Your task to perform on an android device: choose inbox layout in the gmail app Image 0: 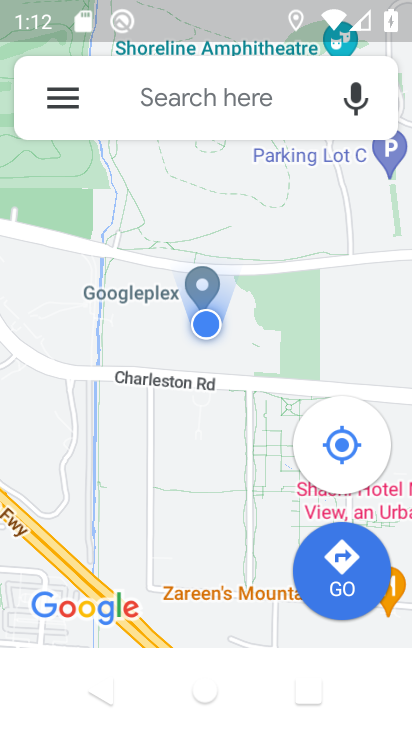
Step 0: press home button
Your task to perform on an android device: choose inbox layout in the gmail app Image 1: 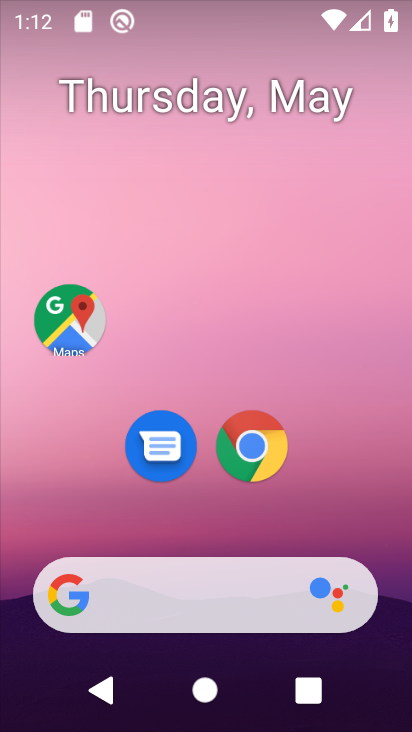
Step 1: drag from (184, 530) to (214, 10)
Your task to perform on an android device: choose inbox layout in the gmail app Image 2: 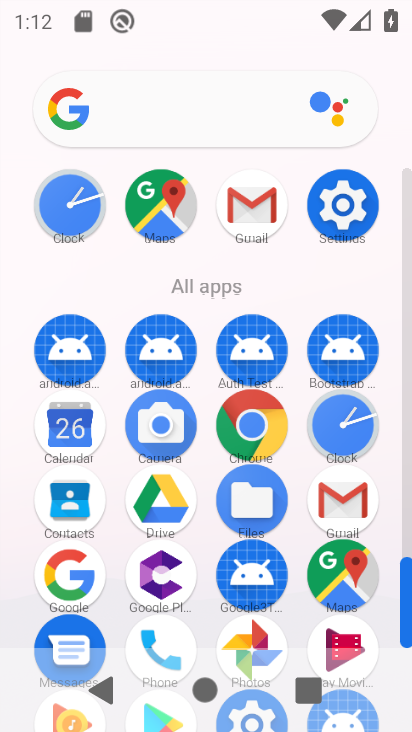
Step 2: click (359, 505)
Your task to perform on an android device: choose inbox layout in the gmail app Image 3: 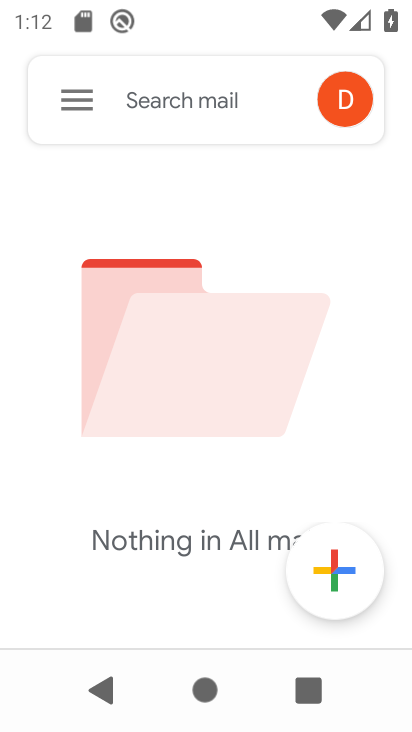
Step 3: click (61, 94)
Your task to perform on an android device: choose inbox layout in the gmail app Image 4: 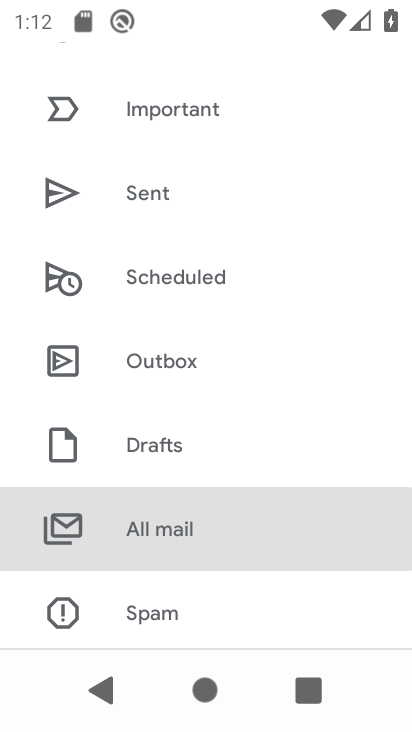
Step 4: drag from (140, 551) to (201, 111)
Your task to perform on an android device: choose inbox layout in the gmail app Image 5: 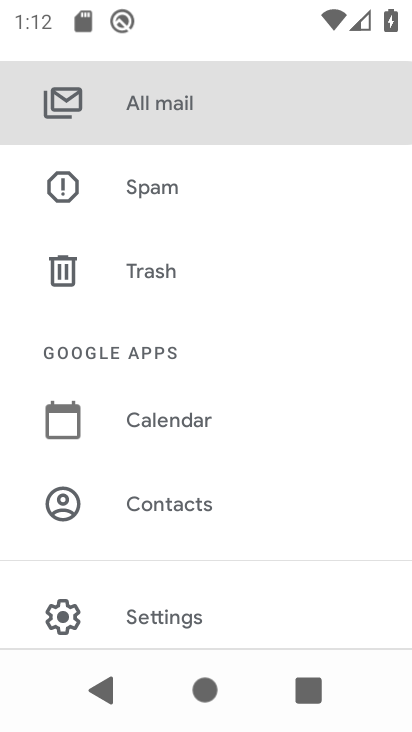
Step 5: drag from (137, 587) to (190, 277)
Your task to perform on an android device: choose inbox layout in the gmail app Image 6: 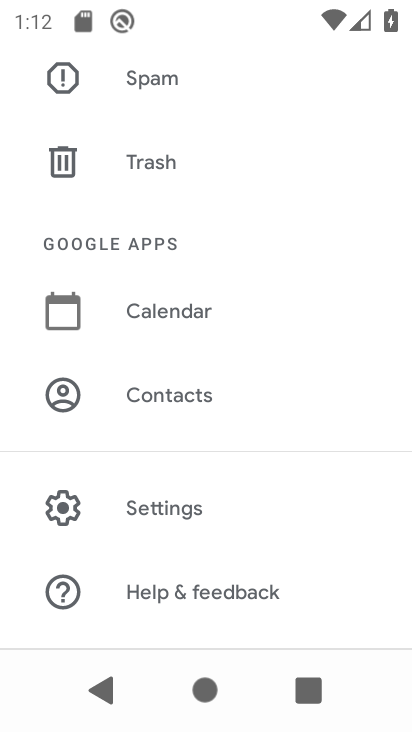
Step 6: click (129, 523)
Your task to perform on an android device: choose inbox layout in the gmail app Image 7: 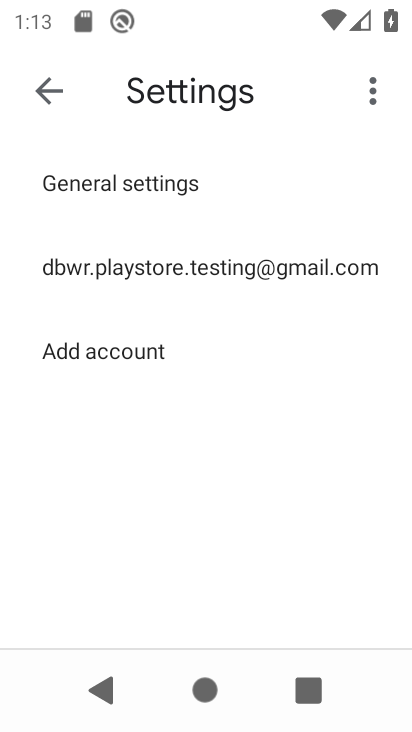
Step 7: click (221, 277)
Your task to perform on an android device: choose inbox layout in the gmail app Image 8: 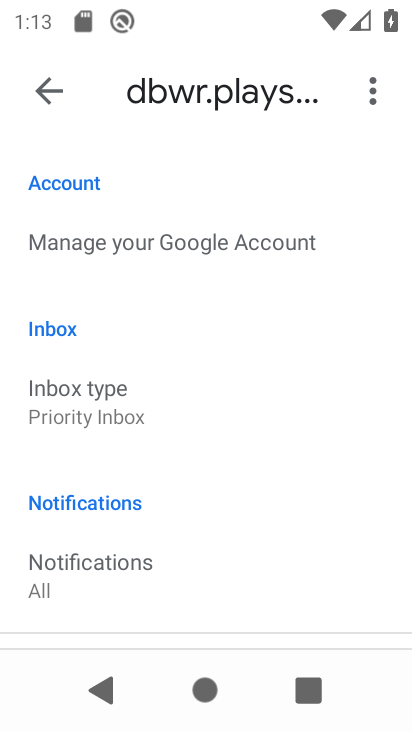
Step 8: click (113, 407)
Your task to perform on an android device: choose inbox layout in the gmail app Image 9: 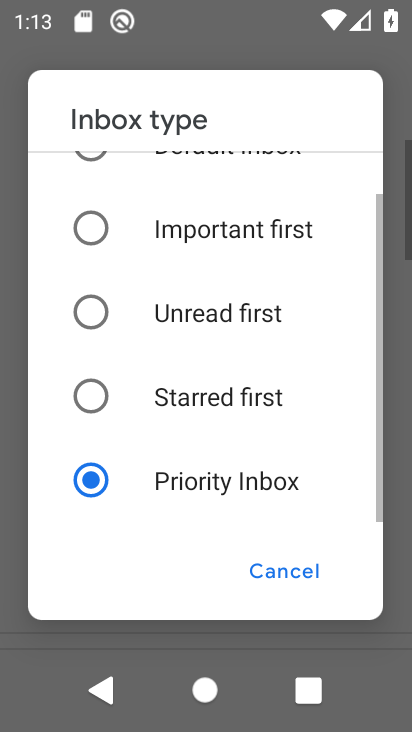
Step 9: drag from (115, 269) to (117, 569)
Your task to perform on an android device: choose inbox layout in the gmail app Image 10: 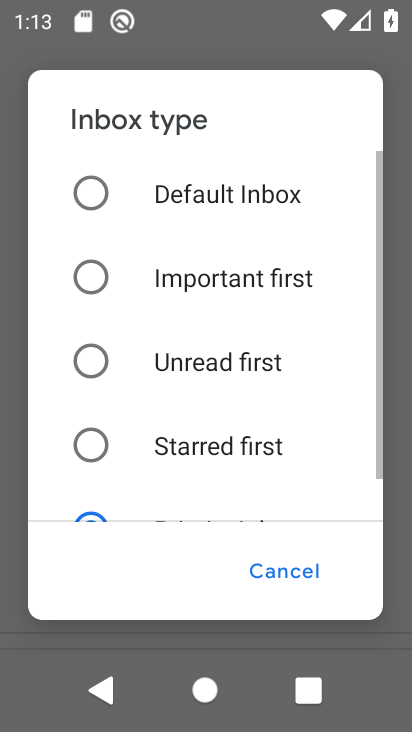
Step 10: click (86, 212)
Your task to perform on an android device: choose inbox layout in the gmail app Image 11: 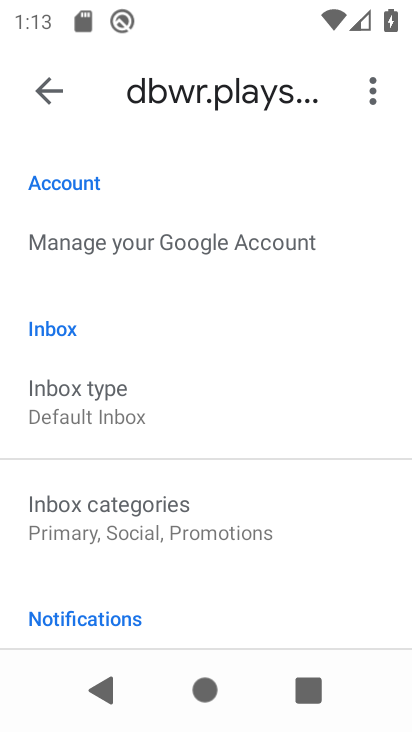
Step 11: task complete